Your task to perform on an android device: set an alarm Image 0: 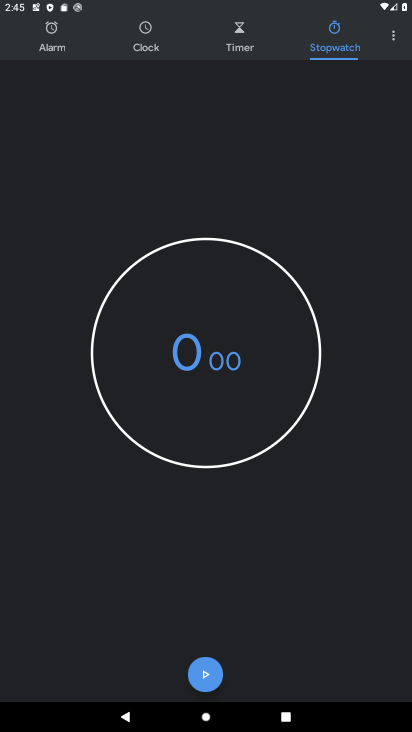
Step 0: click (39, 49)
Your task to perform on an android device: set an alarm Image 1: 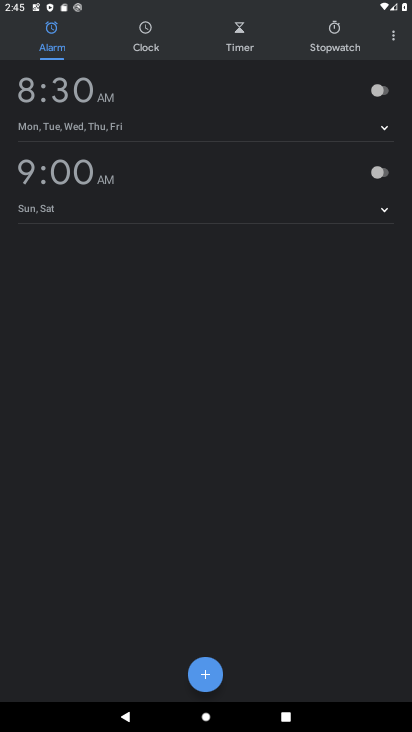
Step 1: click (390, 91)
Your task to perform on an android device: set an alarm Image 2: 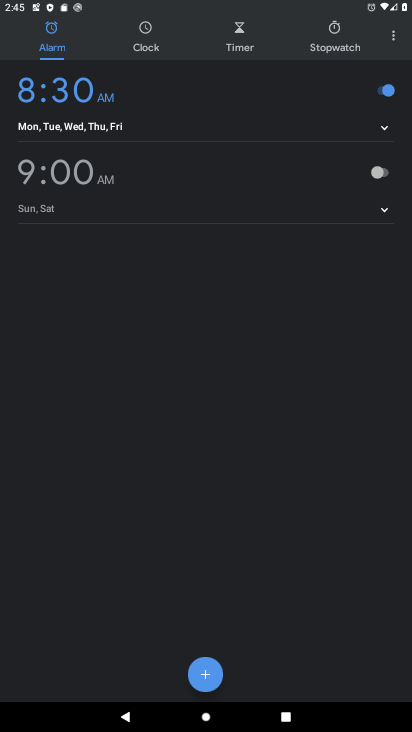
Step 2: task complete